Your task to perform on an android device: Open eBay Image 0: 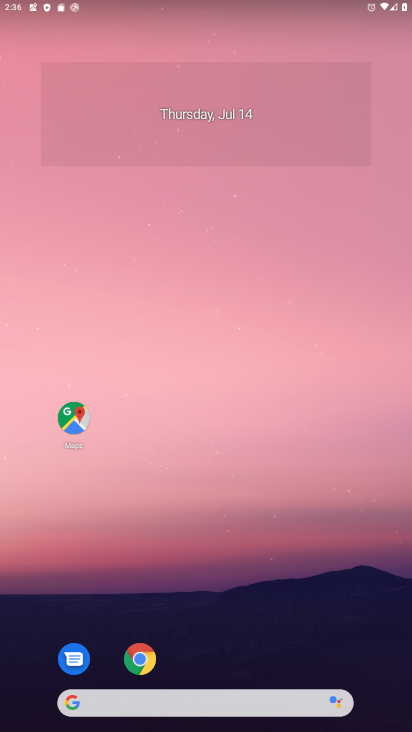
Step 0: press home button
Your task to perform on an android device: Open eBay Image 1: 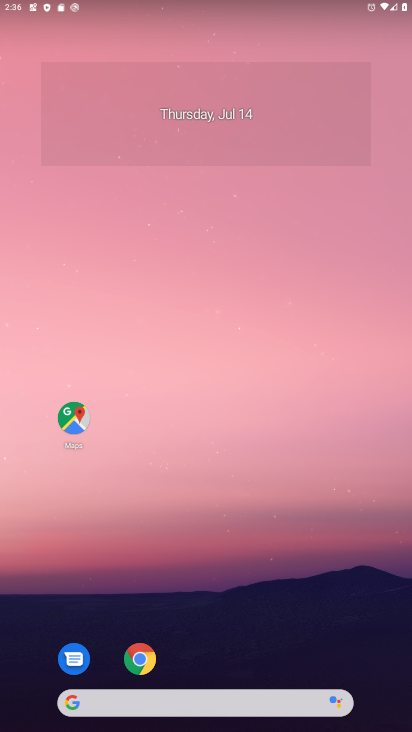
Step 1: click (70, 709)
Your task to perform on an android device: Open eBay Image 2: 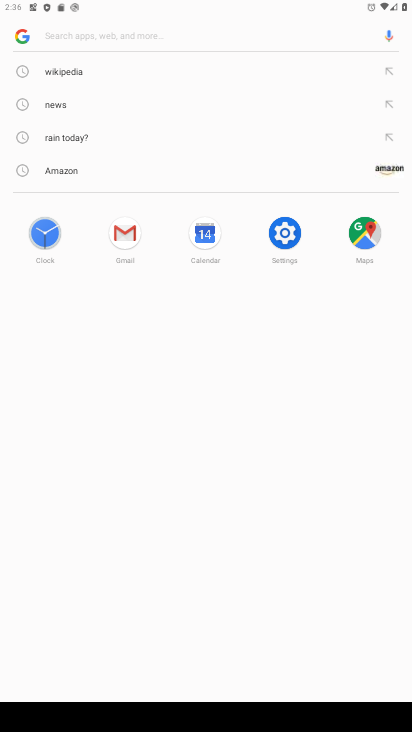
Step 2: type "eBay"
Your task to perform on an android device: Open eBay Image 3: 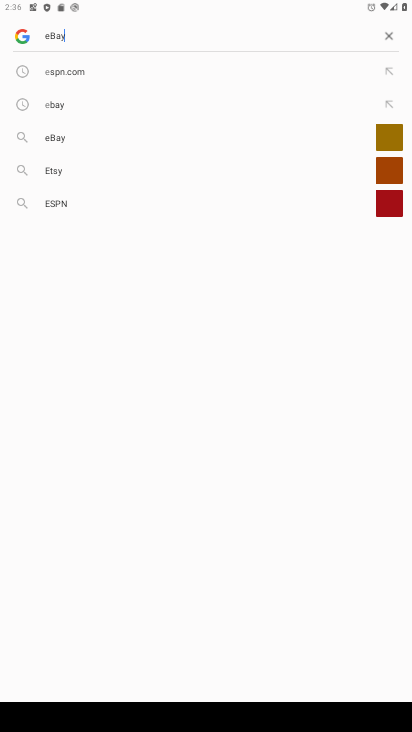
Step 3: press enter
Your task to perform on an android device: Open eBay Image 4: 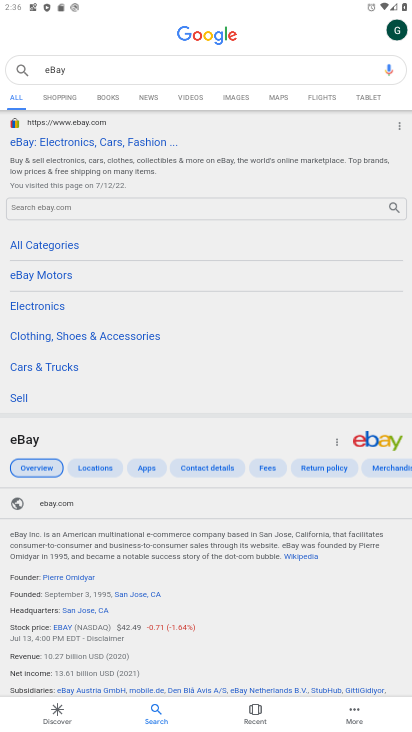
Step 4: click (66, 141)
Your task to perform on an android device: Open eBay Image 5: 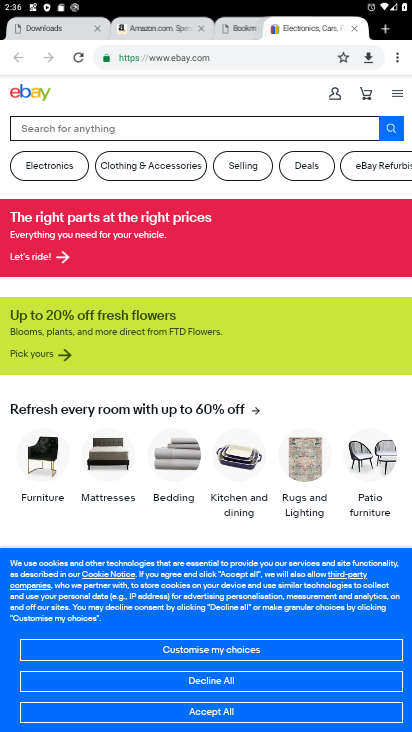
Step 5: task complete